Your task to perform on an android device: set default search engine in the chrome app Image 0: 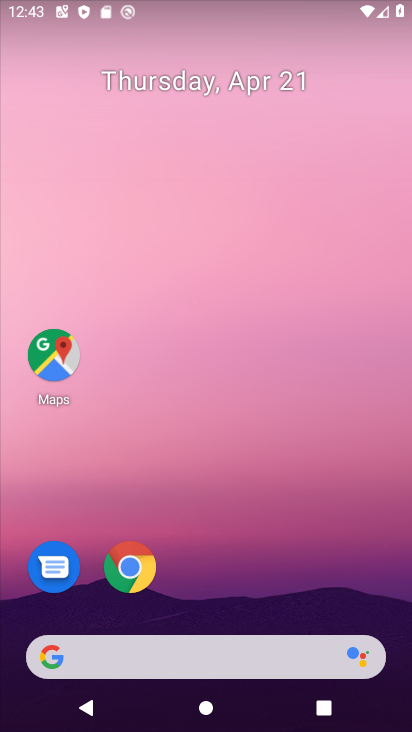
Step 0: click (136, 573)
Your task to perform on an android device: set default search engine in the chrome app Image 1: 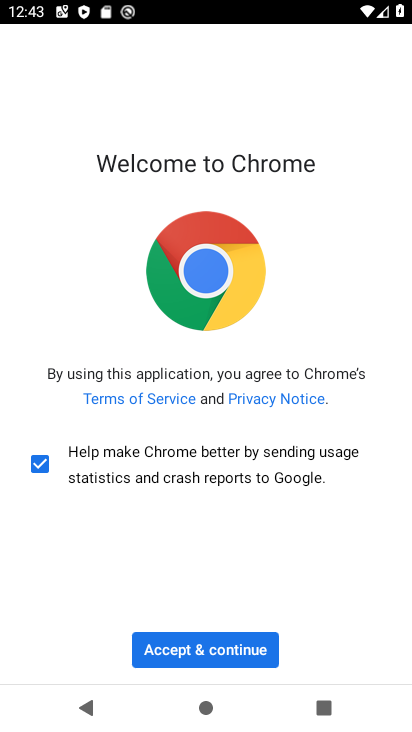
Step 1: click (217, 652)
Your task to perform on an android device: set default search engine in the chrome app Image 2: 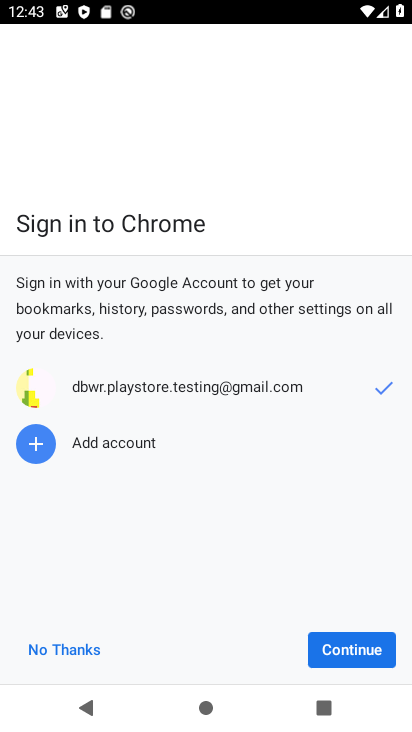
Step 2: click (352, 637)
Your task to perform on an android device: set default search engine in the chrome app Image 3: 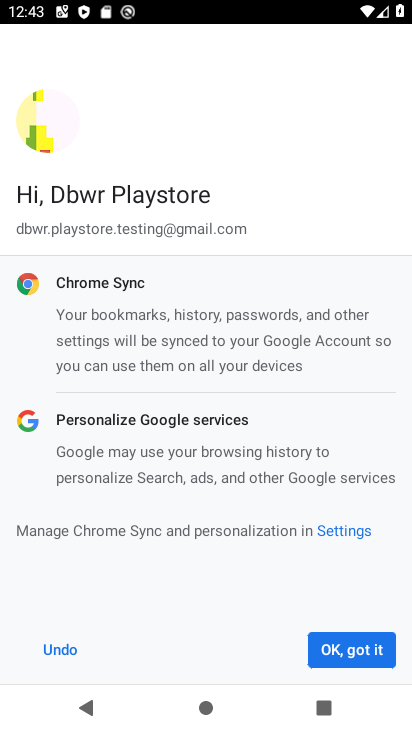
Step 3: click (352, 637)
Your task to perform on an android device: set default search engine in the chrome app Image 4: 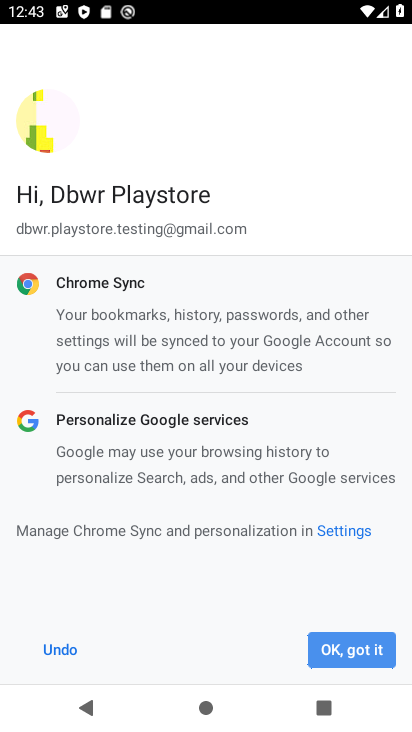
Step 4: click (352, 637)
Your task to perform on an android device: set default search engine in the chrome app Image 5: 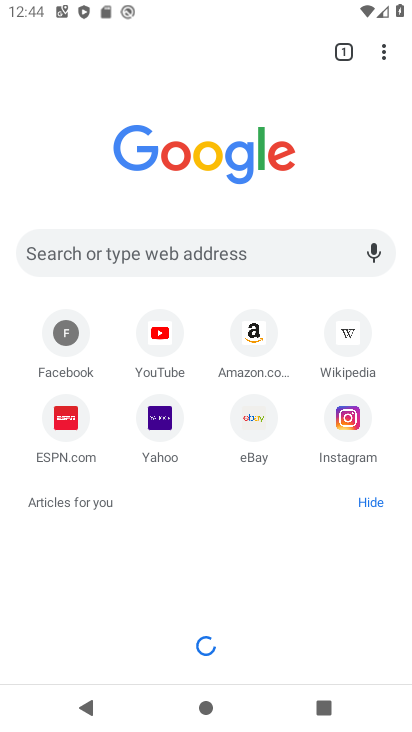
Step 5: click (382, 51)
Your task to perform on an android device: set default search engine in the chrome app Image 6: 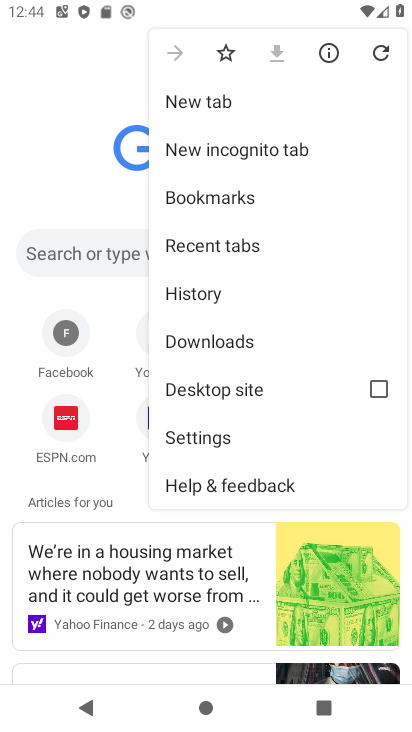
Step 6: click (245, 435)
Your task to perform on an android device: set default search engine in the chrome app Image 7: 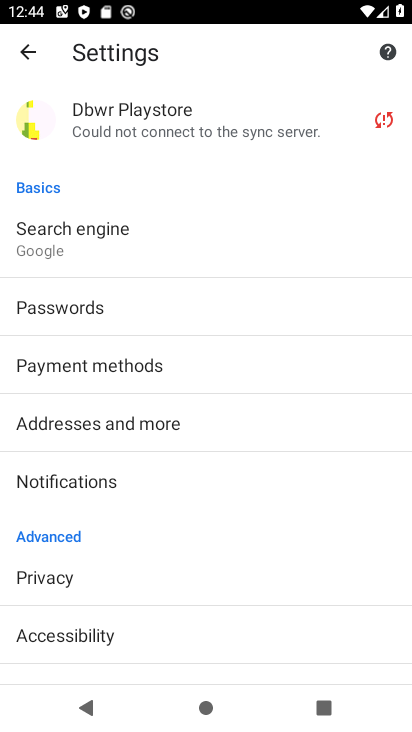
Step 7: click (78, 215)
Your task to perform on an android device: set default search engine in the chrome app Image 8: 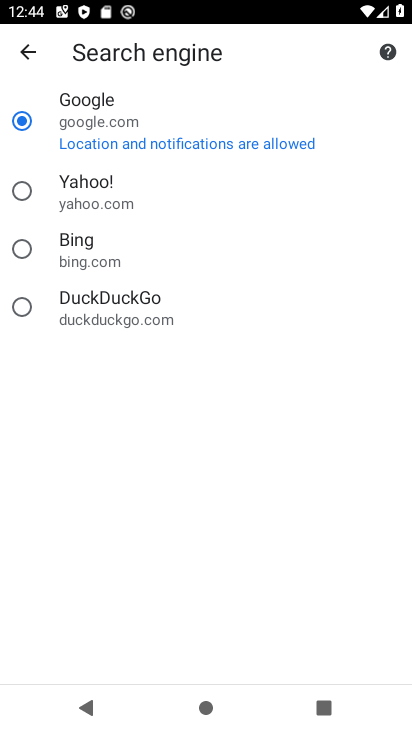
Step 8: click (86, 123)
Your task to perform on an android device: set default search engine in the chrome app Image 9: 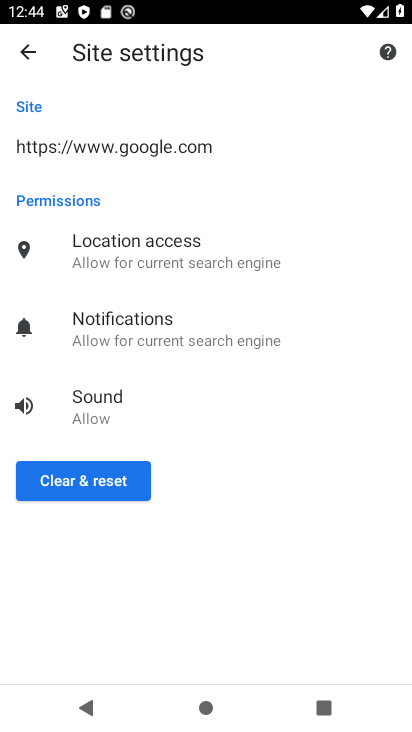
Step 9: task complete